Your task to perform on an android device: Go to wifi settings Image 0: 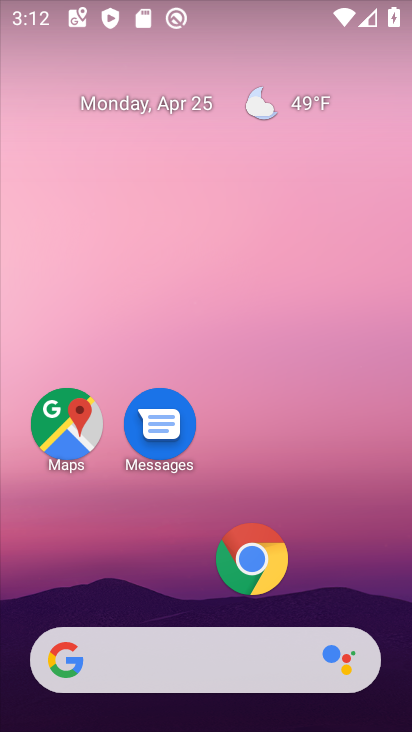
Step 0: drag from (171, 402) to (219, 85)
Your task to perform on an android device: Go to wifi settings Image 1: 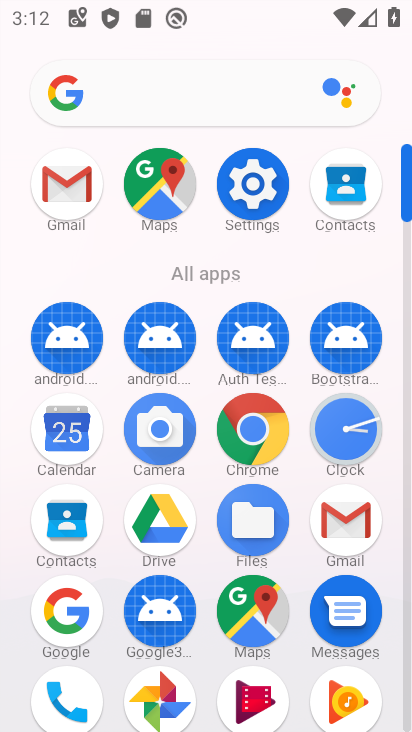
Step 1: click (252, 186)
Your task to perform on an android device: Go to wifi settings Image 2: 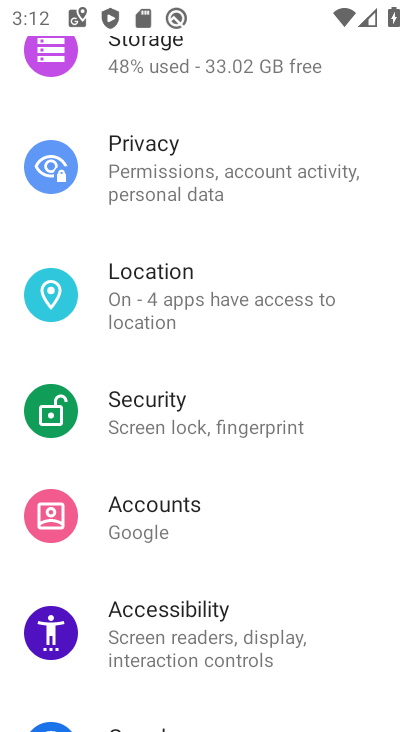
Step 2: drag from (208, 252) to (197, 627)
Your task to perform on an android device: Go to wifi settings Image 3: 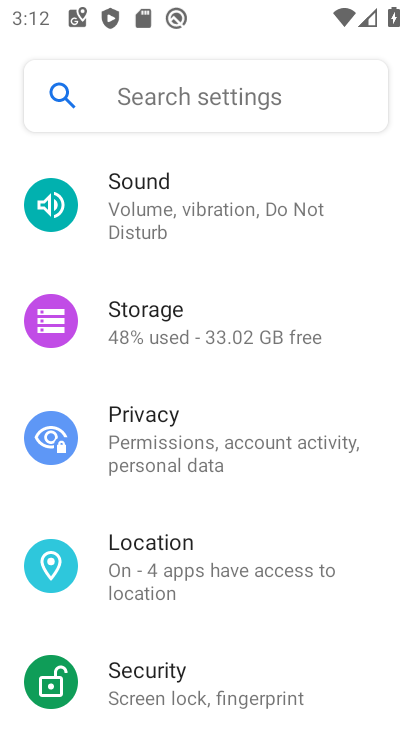
Step 3: drag from (235, 275) to (217, 630)
Your task to perform on an android device: Go to wifi settings Image 4: 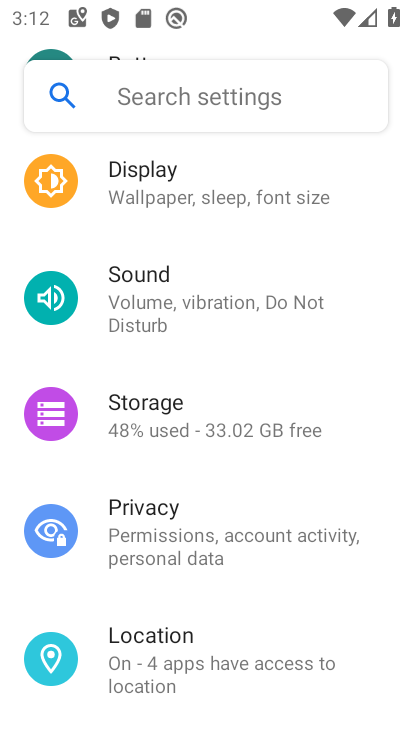
Step 4: drag from (218, 213) to (199, 624)
Your task to perform on an android device: Go to wifi settings Image 5: 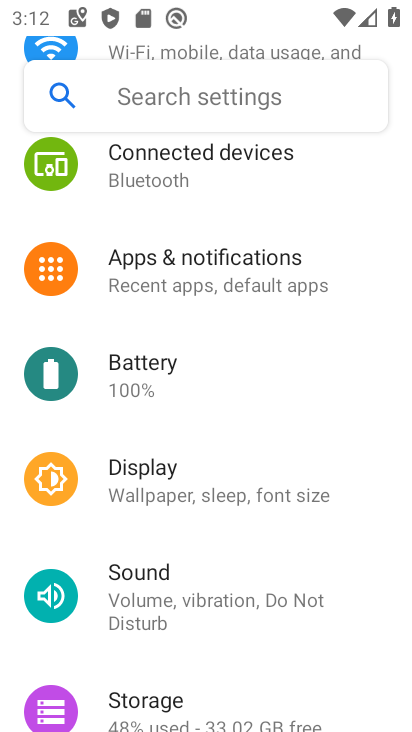
Step 5: drag from (225, 423) to (230, 625)
Your task to perform on an android device: Go to wifi settings Image 6: 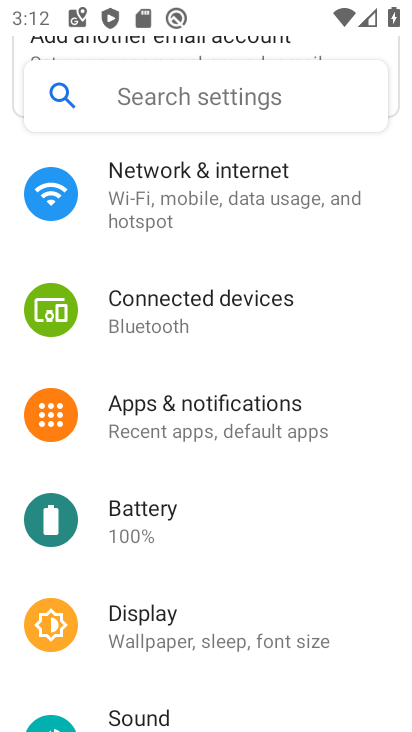
Step 6: click (209, 199)
Your task to perform on an android device: Go to wifi settings Image 7: 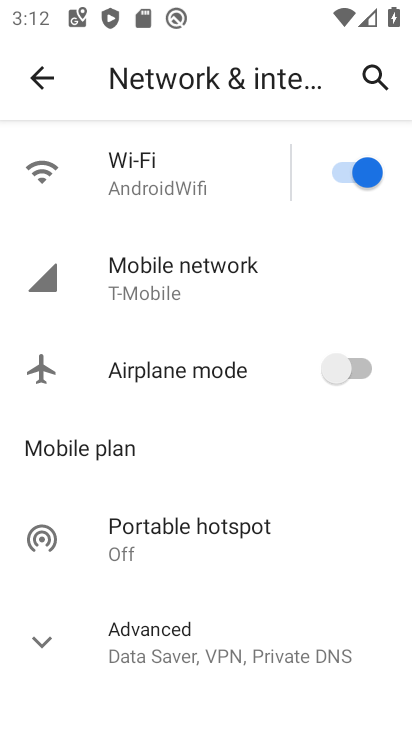
Step 7: click (209, 199)
Your task to perform on an android device: Go to wifi settings Image 8: 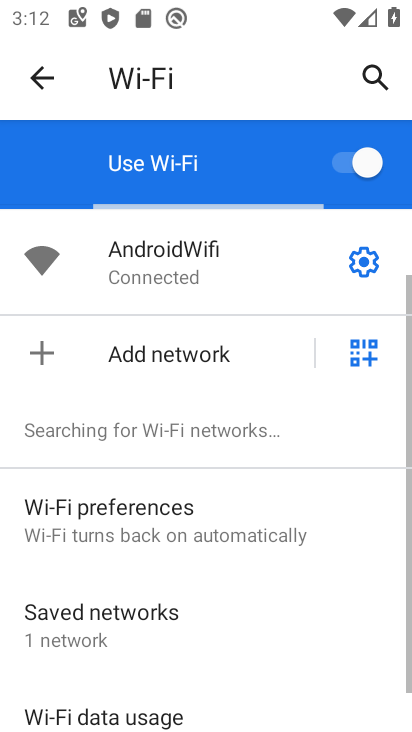
Step 8: task complete